Your task to perform on an android device: open chrome privacy settings Image 0: 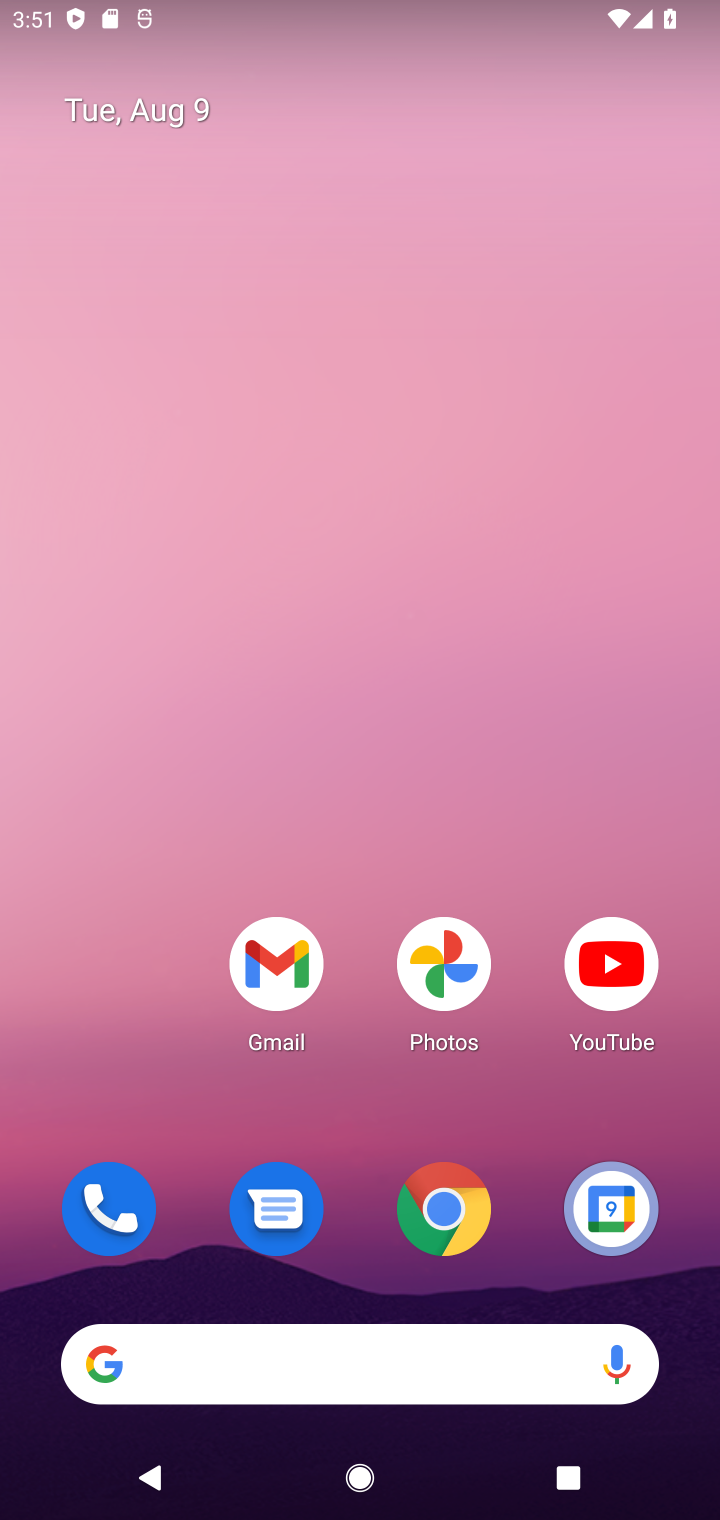
Step 0: click (440, 1215)
Your task to perform on an android device: open chrome privacy settings Image 1: 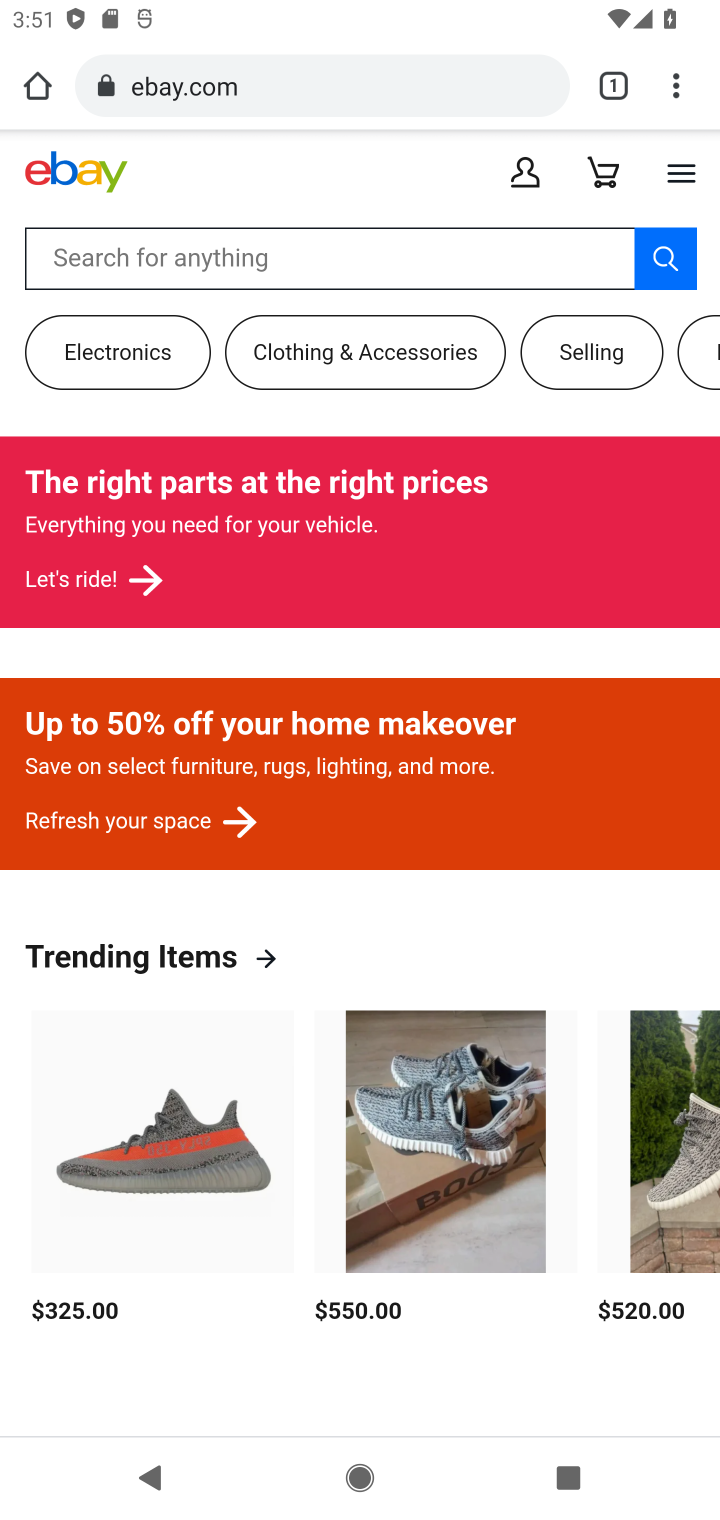
Step 1: click (685, 102)
Your task to perform on an android device: open chrome privacy settings Image 2: 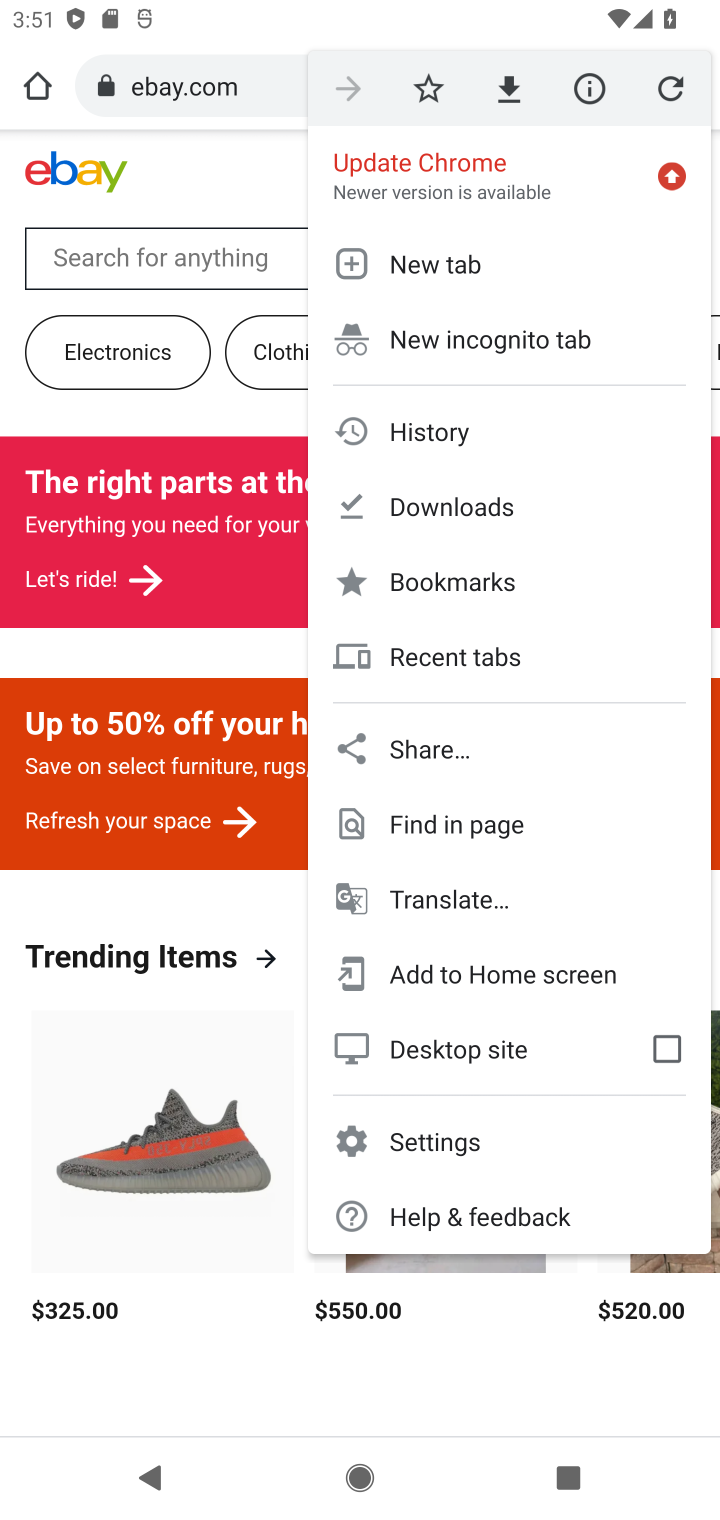
Step 2: click (428, 1133)
Your task to perform on an android device: open chrome privacy settings Image 3: 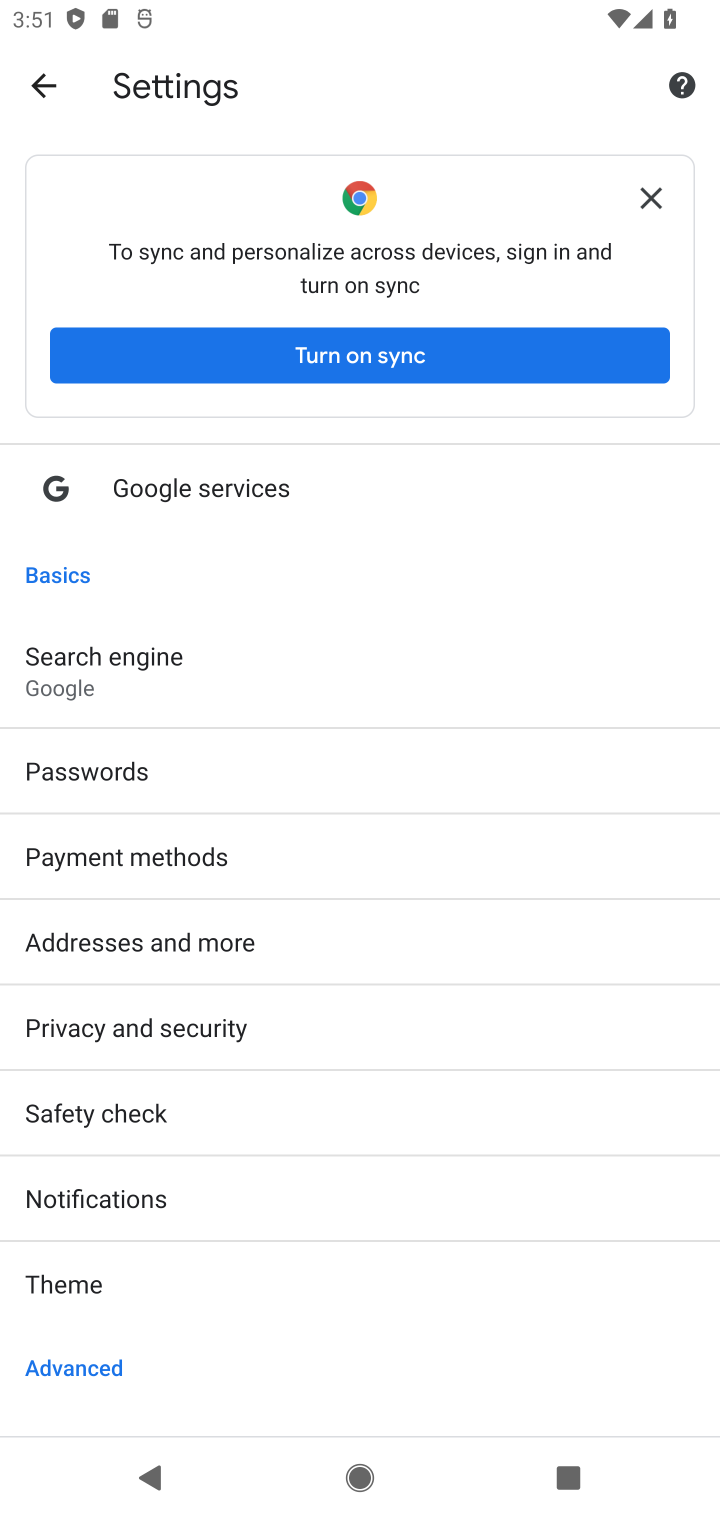
Step 3: click (146, 1022)
Your task to perform on an android device: open chrome privacy settings Image 4: 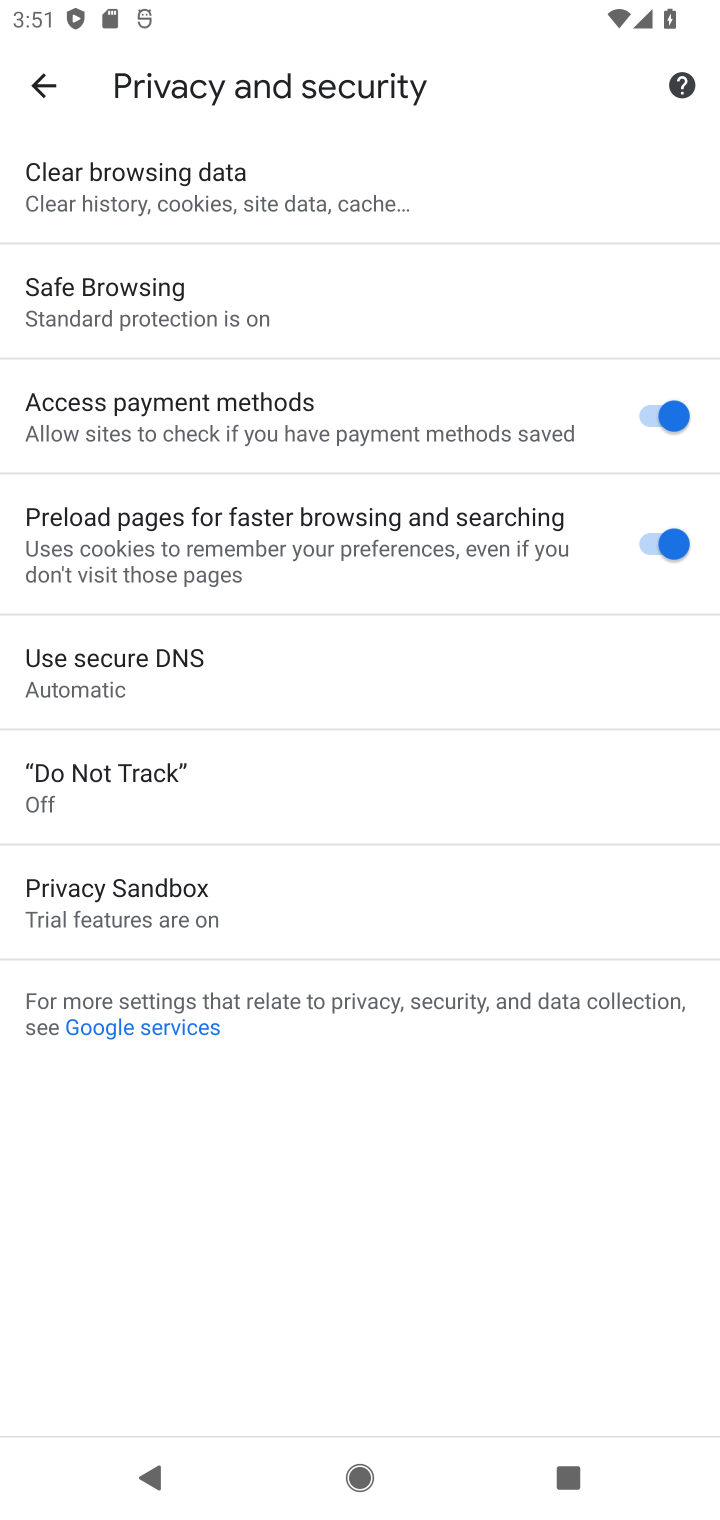
Step 4: task complete